Your task to perform on an android device: toggle show notifications on the lock screen Image 0: 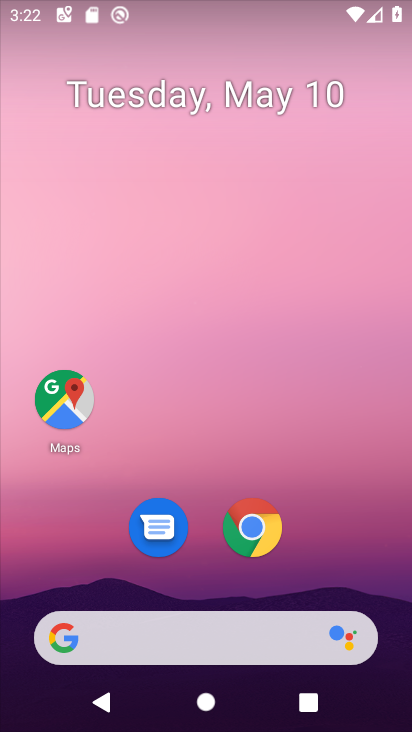
Step 0: drag from (398, 657) to (400, 276)
Your task to perform on an android device: toggle show notifications on the lock screen Image 1: 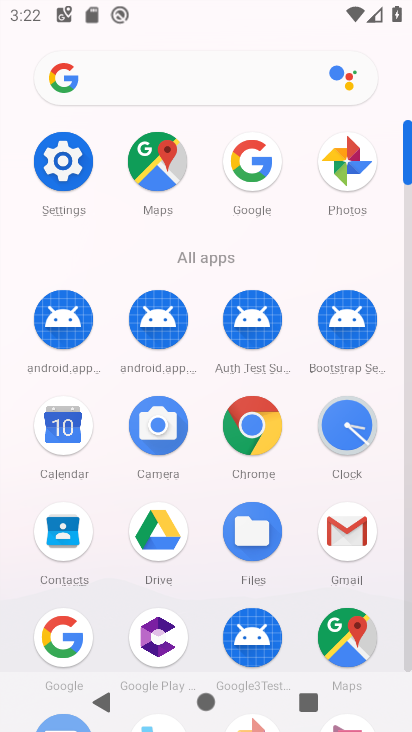
Step 1: click (67, 158)
Your task to perform on an android device: toggle show notifications on the lock screen Image 2: 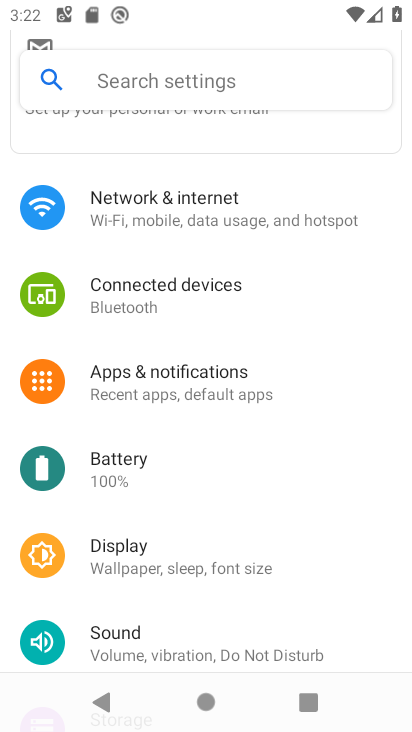
Step 2: click (135, 377)
Your task to perform on an android device: toggle show notifications on the lock screen Image 3: 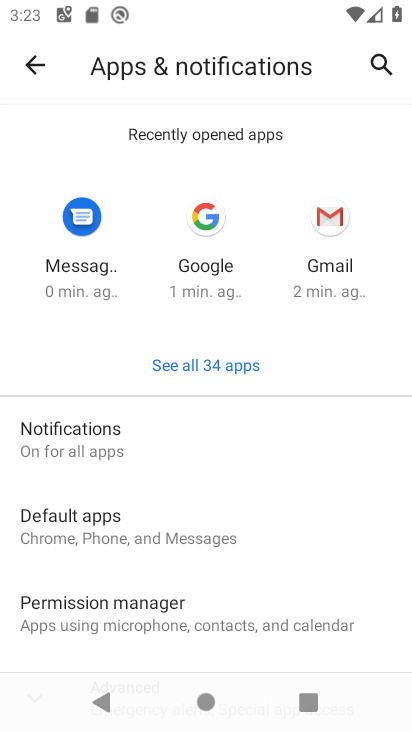
Step 3: click (67, 438)
Your task to perform on an android device: toggle show notifications on the lock screen Image 4: 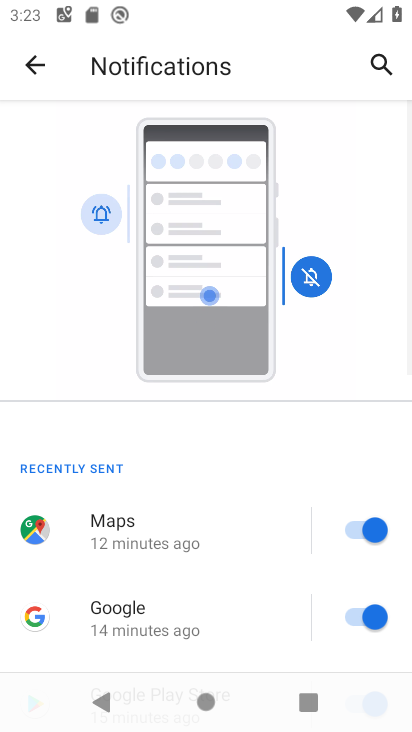
Step 4: drag from (263, 566) to (253, 283)
Your task to perform on an android device: toggle show notifications on the lock screen Image 5: 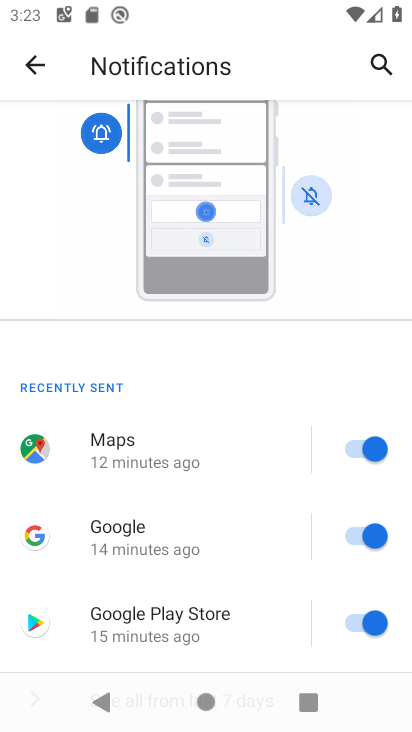
Step 5: drag from (284, 618) to (285, 356)
Your task to perform on an android device: toggle show notifications on the lock screen Image 6: 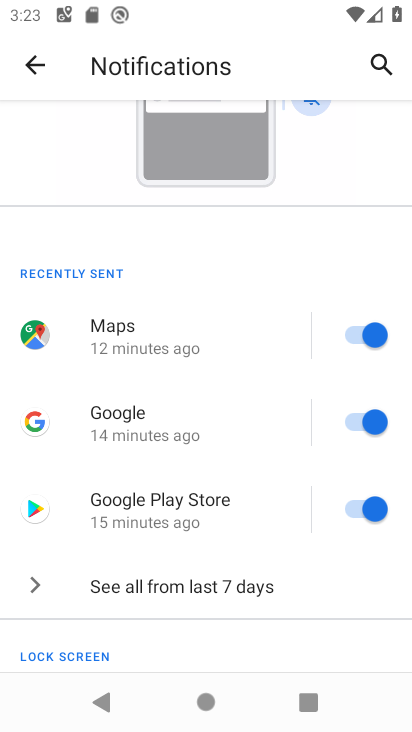
Step 6: drag from (276, 614) to (285, 224)
Your task to perform on an android device: toggle show notifications on the lock screen Image 7: 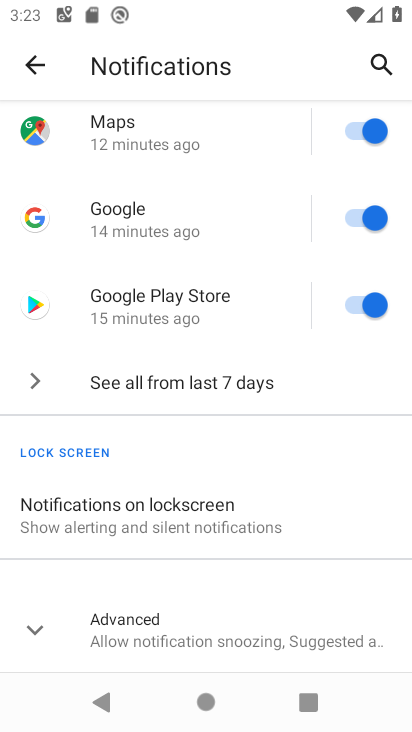
Step 7: drag from (279, 552) to (263, 383)
Your task to perform on an android device: toggle show notifications on the lock screen Image 8: 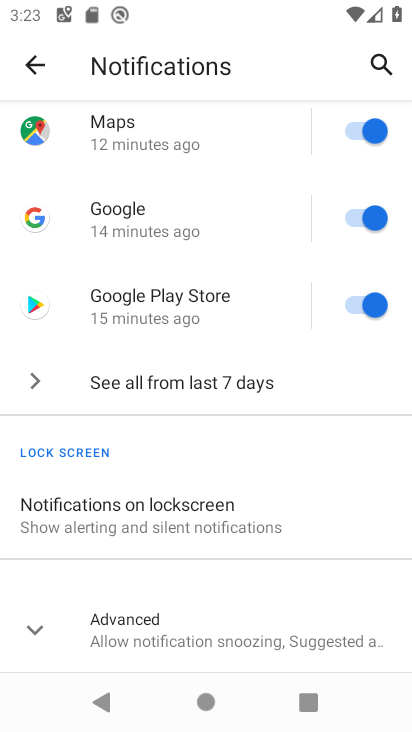
Step 8: click (117, 514)
Your task to perform on an android device: toggle show notifications on the lock screen Image 9: 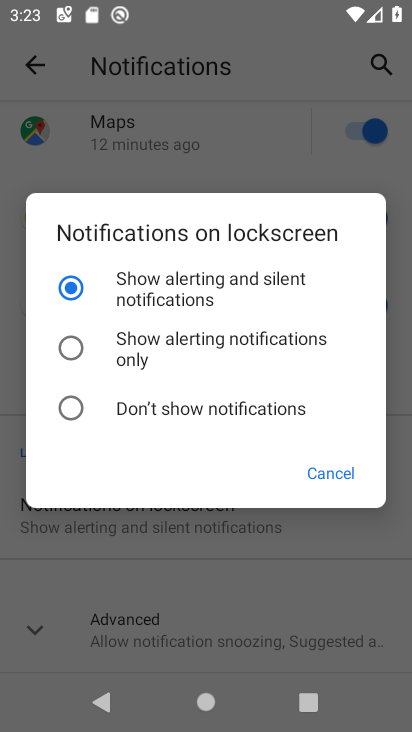
Step 9: click (67, 355)
Your task to perform on an android device: toggle show notifications on the lock screen Image 10: 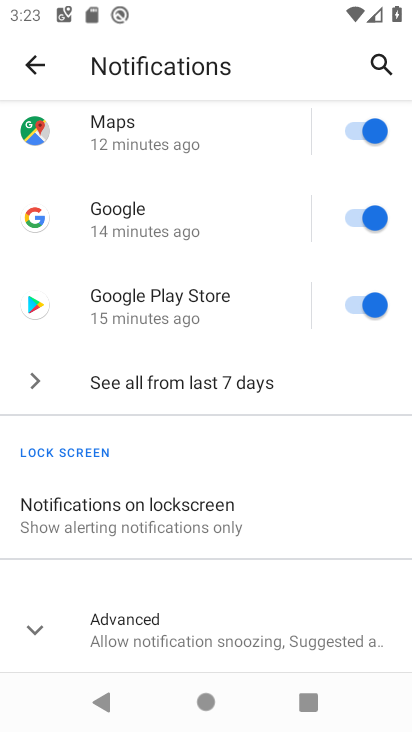
Step 10: task complete